Your task to perform on an android device: visit the assistant section in the google photos Image 0: 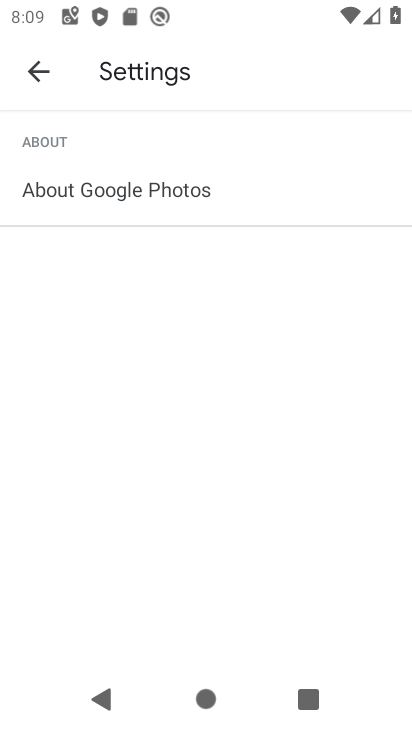
Step 0: press home button
Your task to perform on an android device: visit the assistant section in the google photos Image 1: 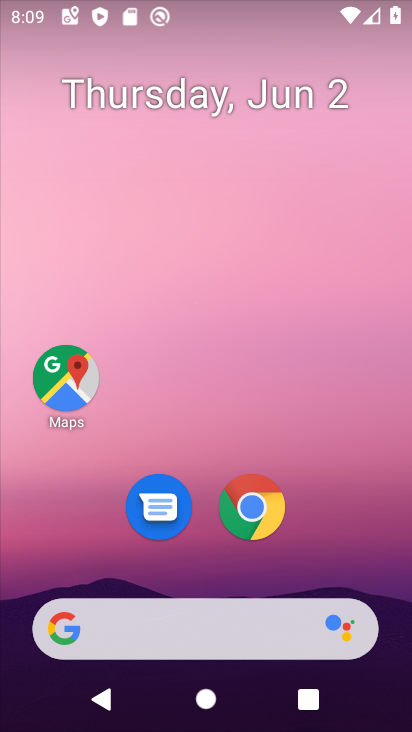
Step 1: drag from (153, 591) to (306, 118)
Your task to perform on an android device: visit the assistant section in the google photos Image 2: 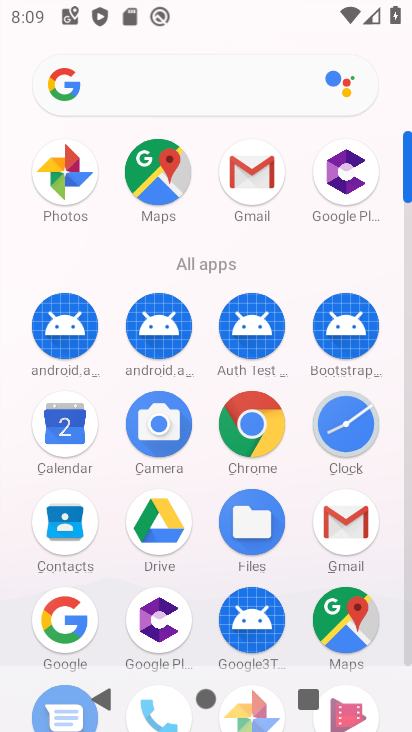
Step 2: drag from (269, 647) to (304, 438)
Your task to perform on an android device: visit the assistant section in the google photos Image 3: 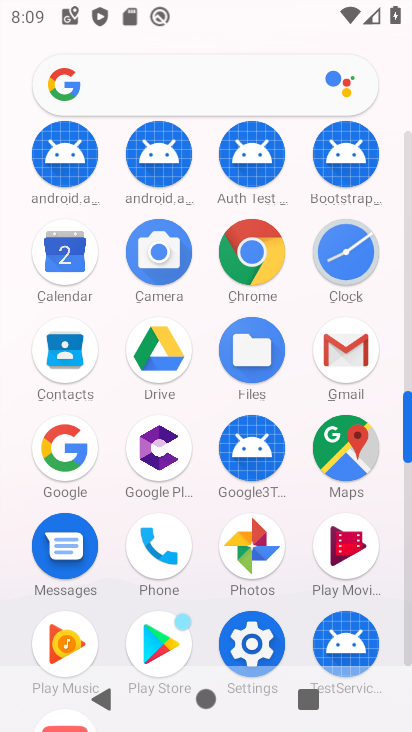
Step 3: click (252, 576)
Your task to perform on an android device: visit the assistant section in the google photos Image 4: 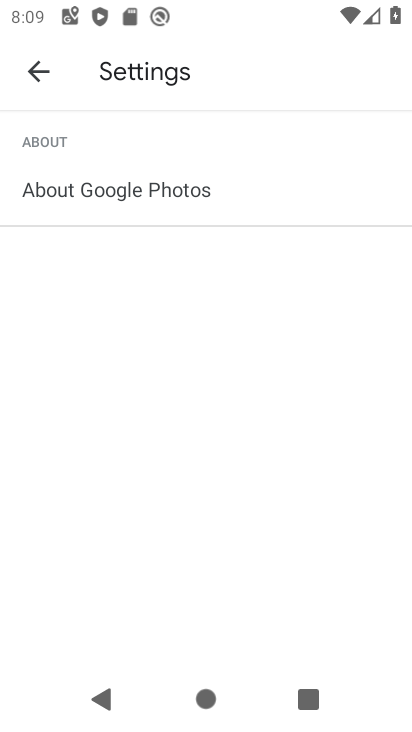
Step 4: click (35, 82)
Your task to perform on an android device: visit the assistant section in the google photos Image 5: 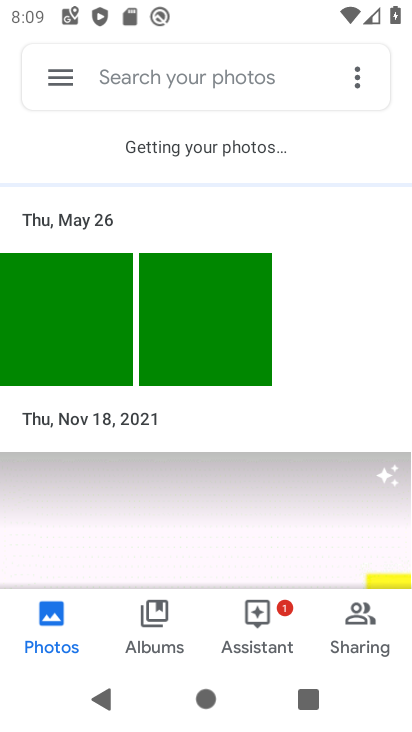
Step 5: click (290, 615)
Your task to perform on an android device: visit the assistant section in the google photos Image 6: 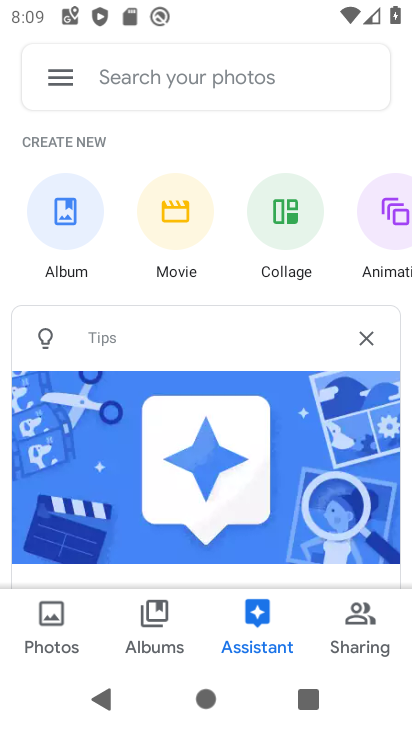
Step 6: task complete